Your task to perform on an android device: snooze an email in the gmail app Image 0: 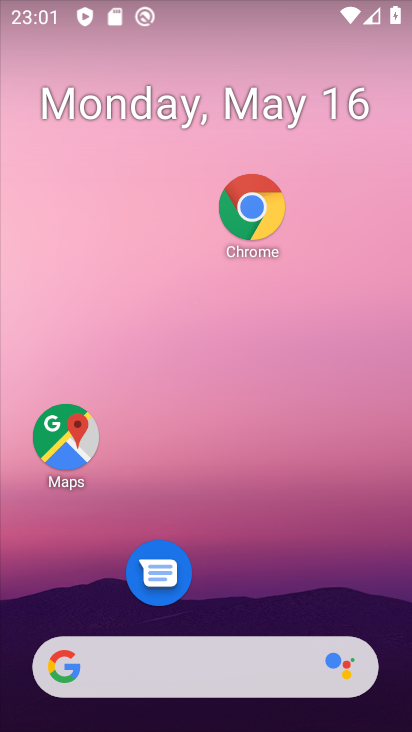
Step 0: drag from (288, 606) to (296, 97)
Your task to perform on an android device: snooze an email in the gmail app Image 1: 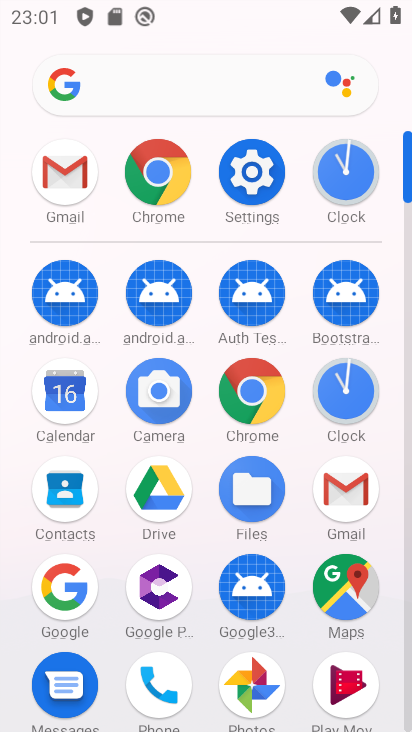
Step 1: click (343, 491)
Your task to perform on an android device: snooze an email in the gmail app Image 2: 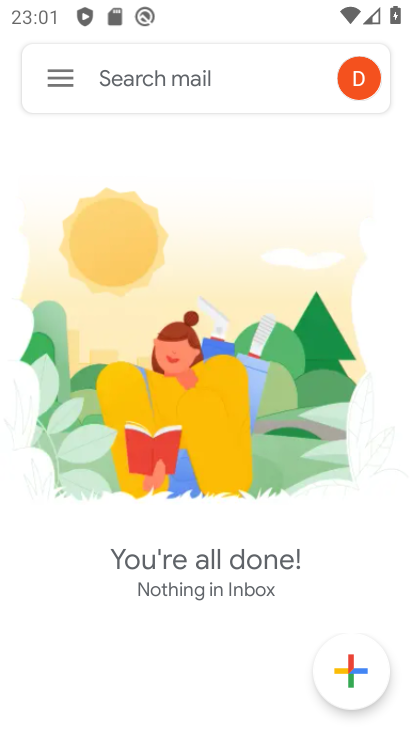
Step 2: click (61, 71)
Your task to perform on an android device: snooze an email in the gmail app Image 3: 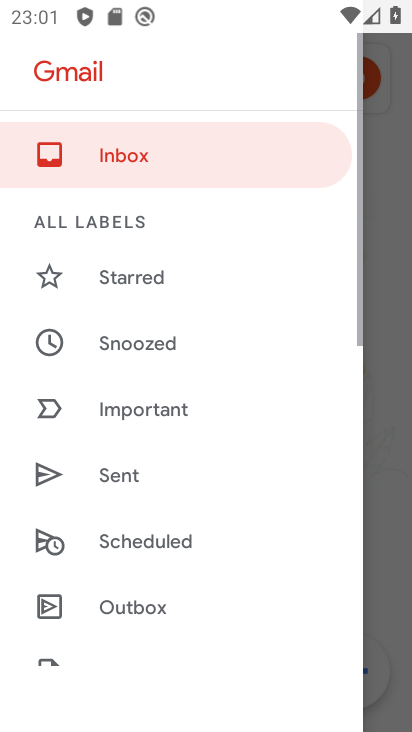
Step 3: click (183, 341)
Your task to perform on an android device: snooze an email in the gmail app Image 4: 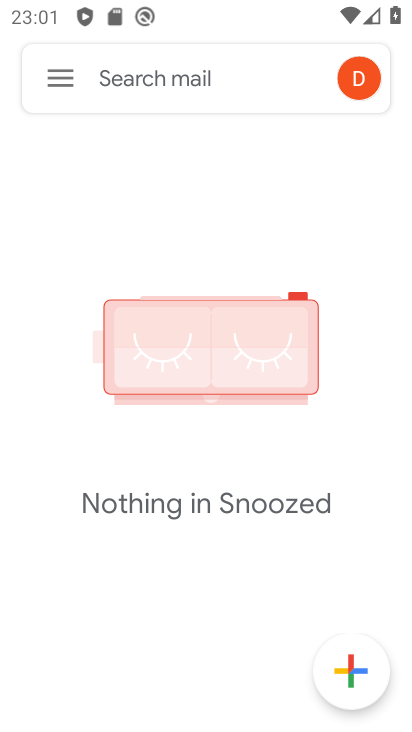
Step 4: task complete